Your task to perform on an android device: read, delete, or share a saved page in the chrome app Image 0: 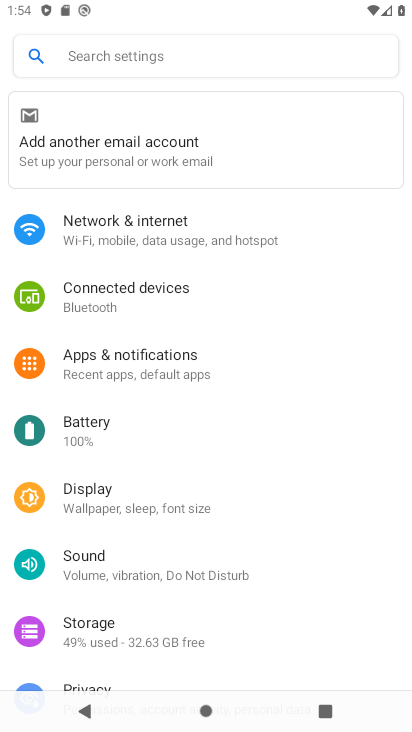
Step 0: press home button
Your task to perform on an android device: read, delete, or share a saved page in the chrome app Image 1: 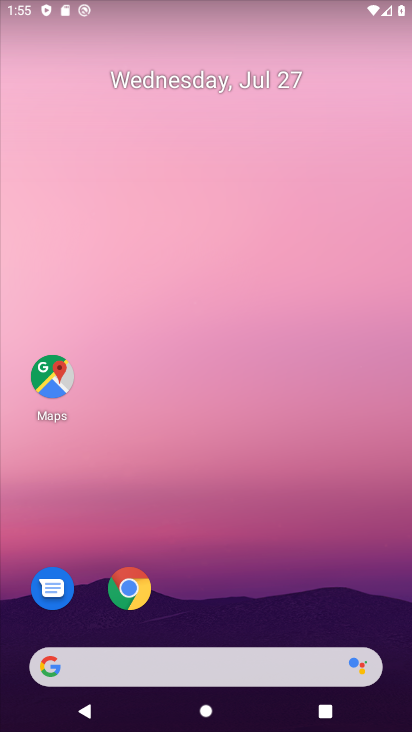
Step 1: click (146, 606)
Your task to perform on an android device: read, delete, or share a saved page in the chrome app Image 2: 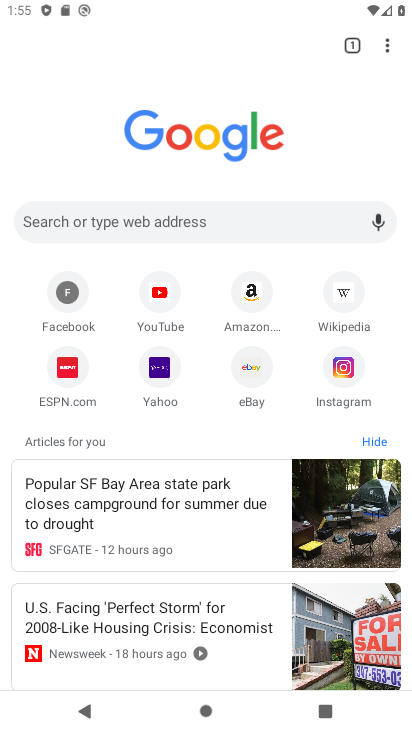
Step 2: click (388, 43)
Your task to perform on an android device: read, delete, or share a saved page in the chrome app Image 3: 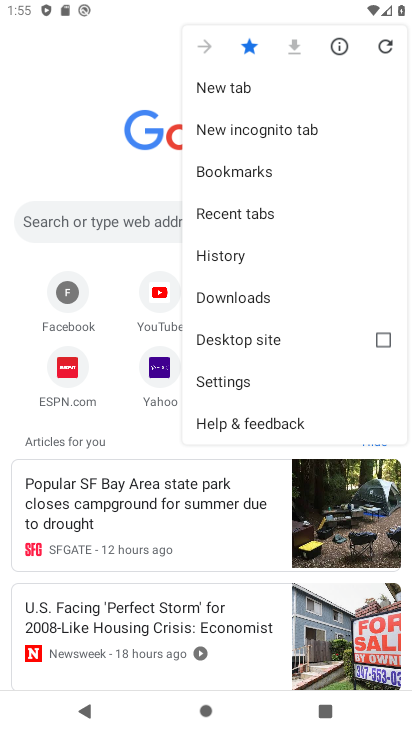
Step 3: click (245, 294)
Your task to perform on an android device: read, delete, or share a saved page in the chrome app Image 4: 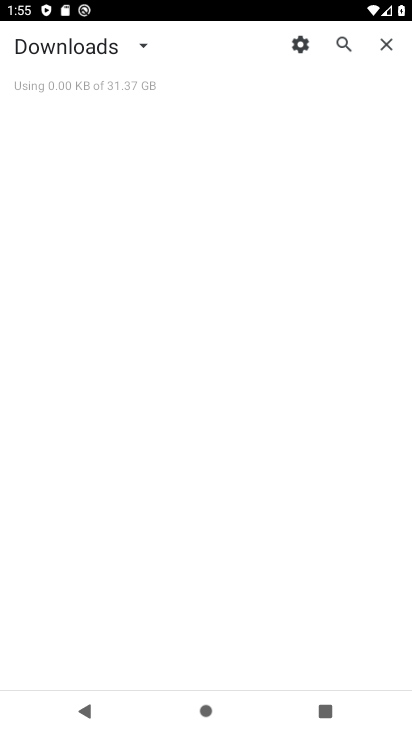
Step 4: click (134, 50)
Your task to perform on an android device: read, delete, or share a saved page in the chrome app Image 5: 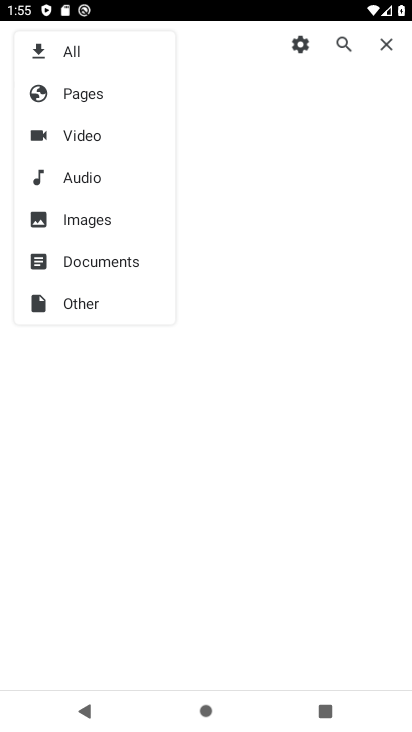
Step 5: click (81, 108)
Your task to perform on an android device: read, delete, or share a saved page in the chrome app Image 6: 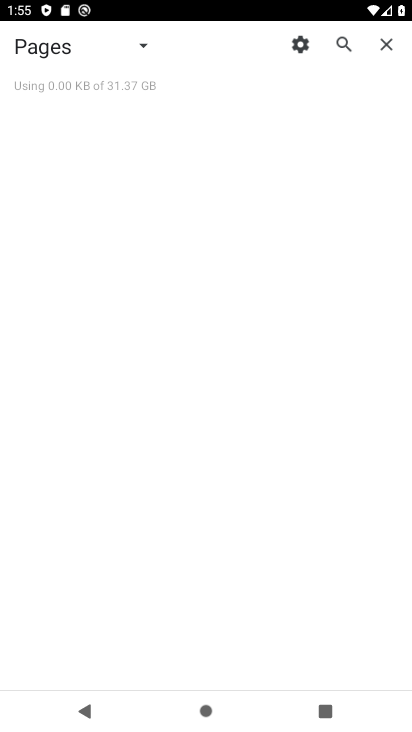
Step 6: task complete